Your task to perform on an android device: add a contact in the contacts app Image 0: 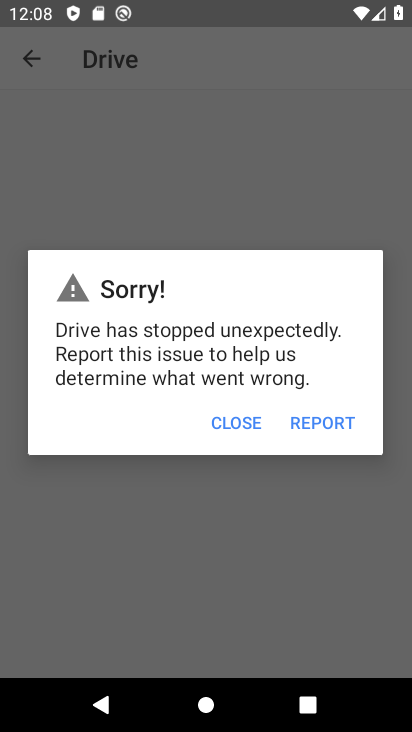
Step 0: press home button
Your task to perform on an android device: add a contact in the contacts app Image 1: 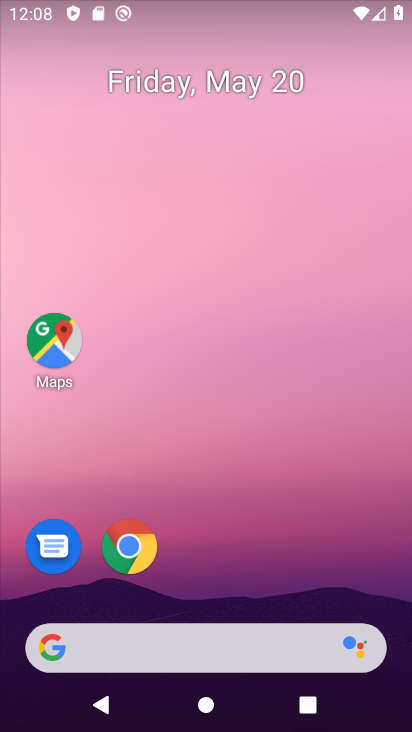
Step 1: drag from (248, 580) to (244, 0)
Your task to perform on an android device: add a contact in the contacts app Image 2: 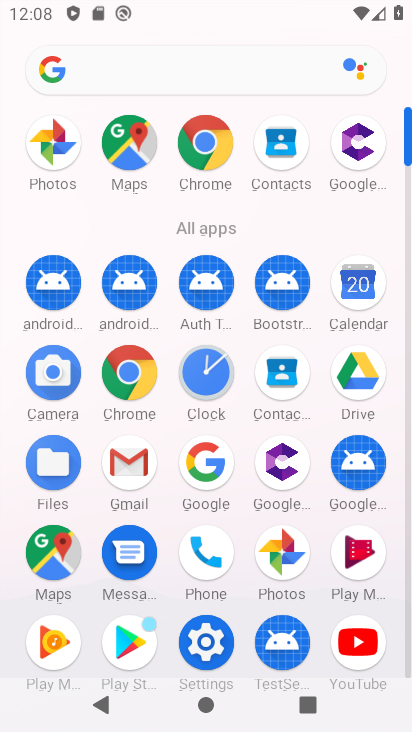
Step 2: click (291, 369)
Your task to perform on an android device: add a contact in the contacts app Image 3: 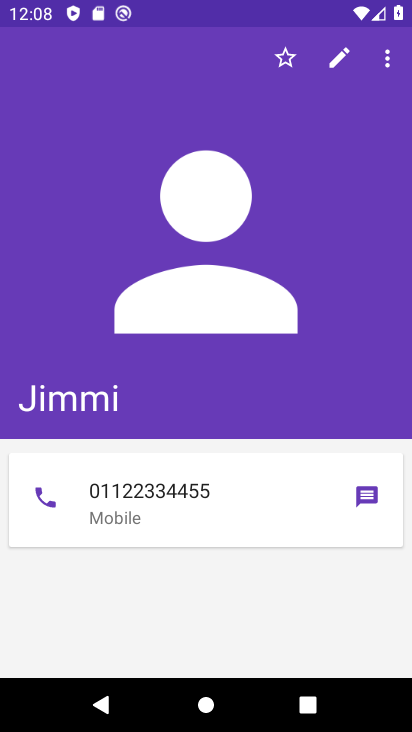
Step 3: press back button
Your task to perform on an android device: add a contact in the contacts app Image 4: 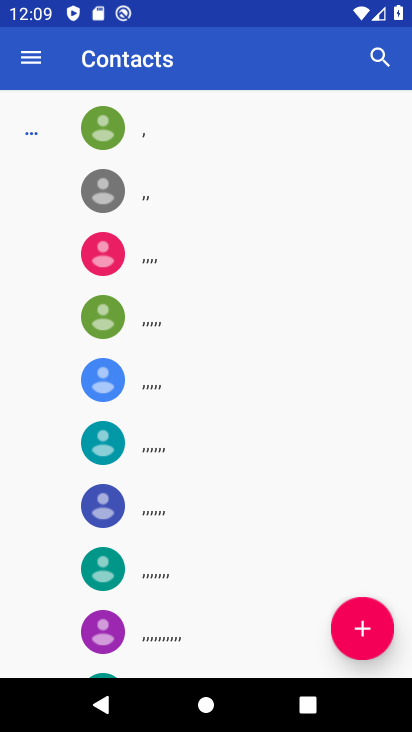
Step 4: click (365, 619)
Your task to perform on an android device: add a contact in the contacts app Image 5: 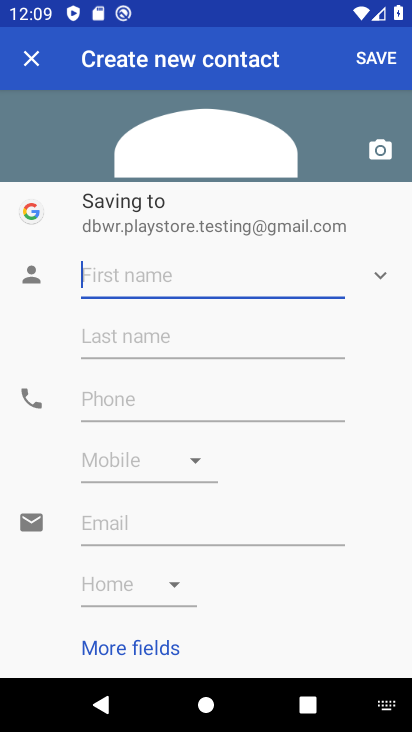
Step 5: type "Jamwant"
Your task to perform on an android device: add a contact in the contacts app Image 6: 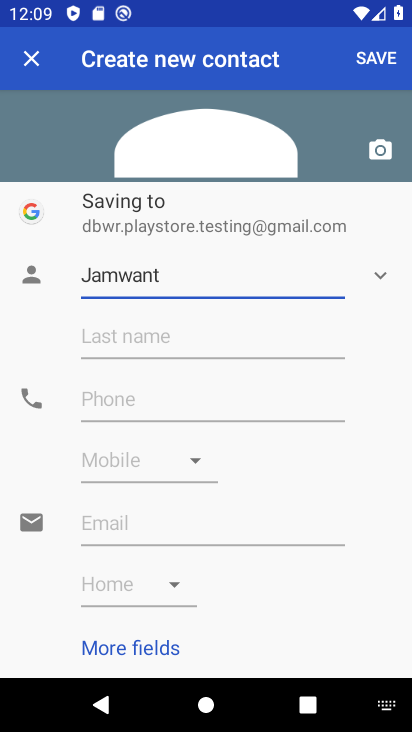
Step 6: click (253, 399)
Your task to perform on an android device: add a contact in the contacts app Image 7: 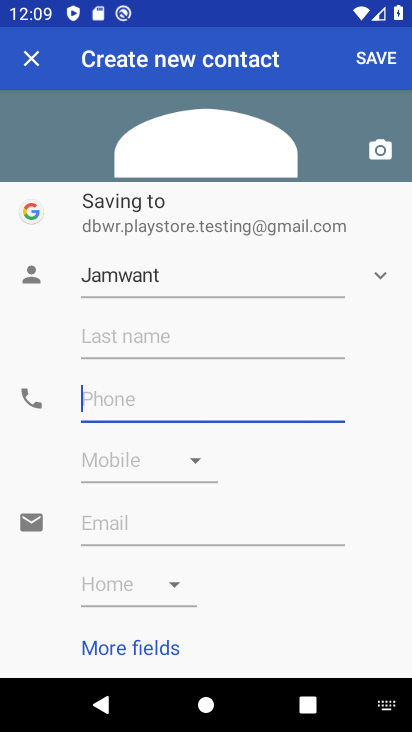
Step 7: type "0442244668800"
Your task to perform on an android device: add a contact in the contacts app Image 8: 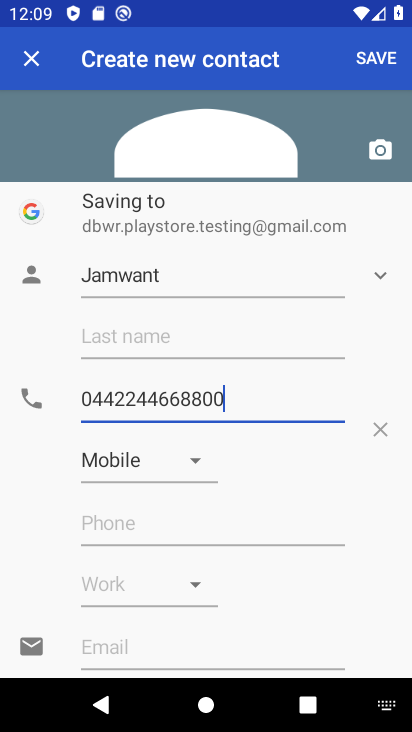
Step 8: click (370, 47)
Your task to perform on an android device: add a contact in the contacts app Image 9: 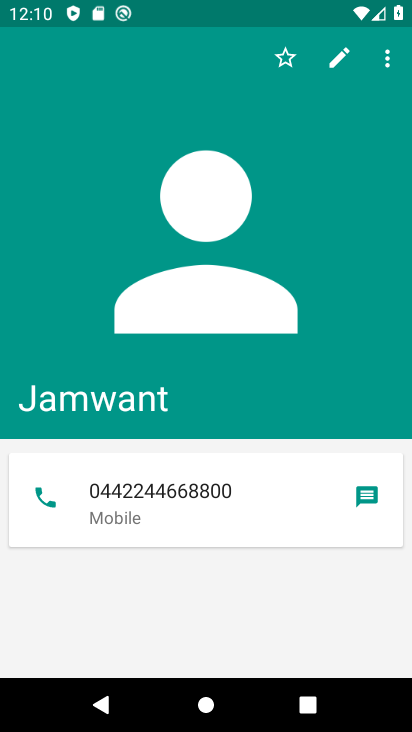
Step 9: task complete